Your task to perform on an android device: turn smart compose on in the gmail app Image 0: 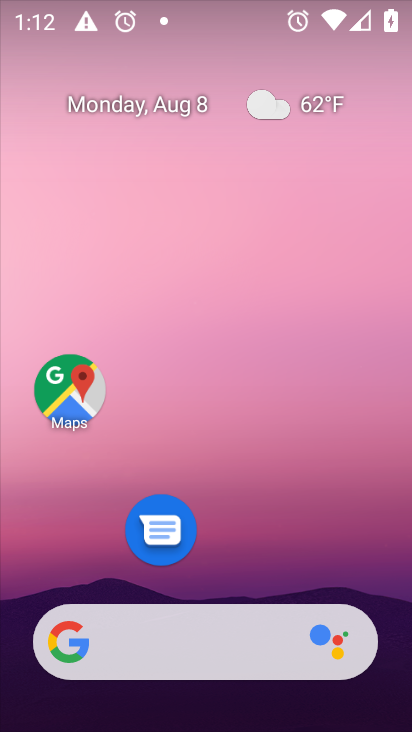
Step 0: drag from (236, 569) to (236, 77)
Your task to perform on an android device: turn smart compose on in the gmail app Image 1: 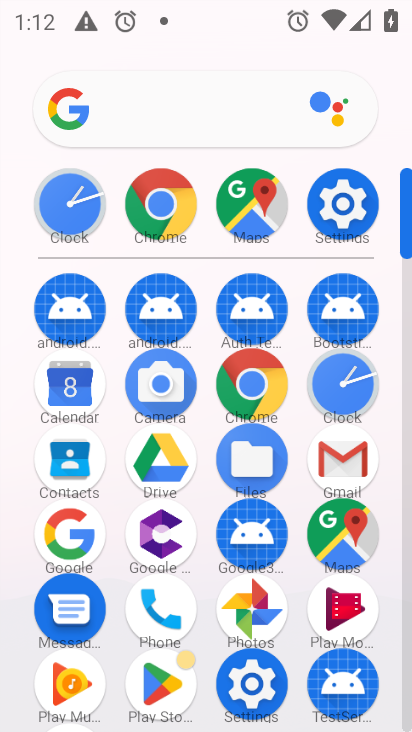
Step 1: click (356, 473)
Your task to perform on an android device: turn smart compose on in the gmail app Image 2: 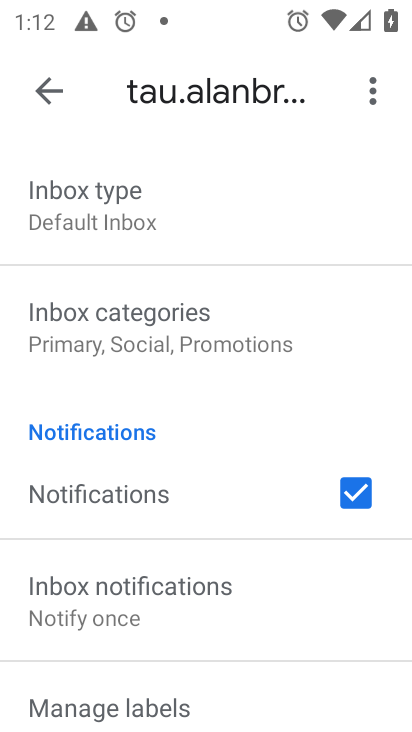
Step 2: task complete